Your task to perform on an android device: turn on wifi Image 0: 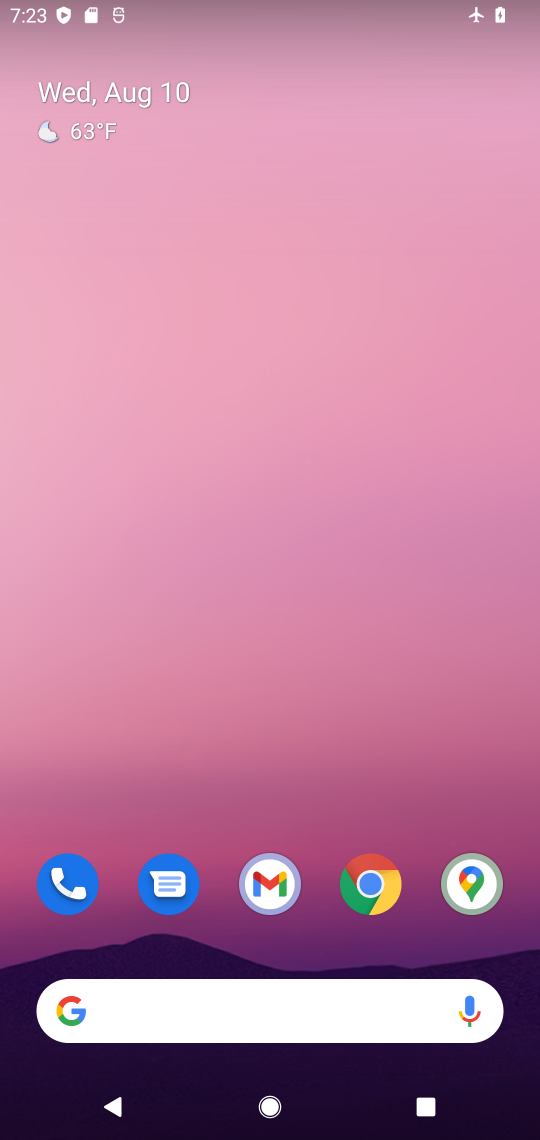
Step 0: drag from (320, 961) to (333, 174)
Your task to perform on an android device: turn on wifi Image 1: 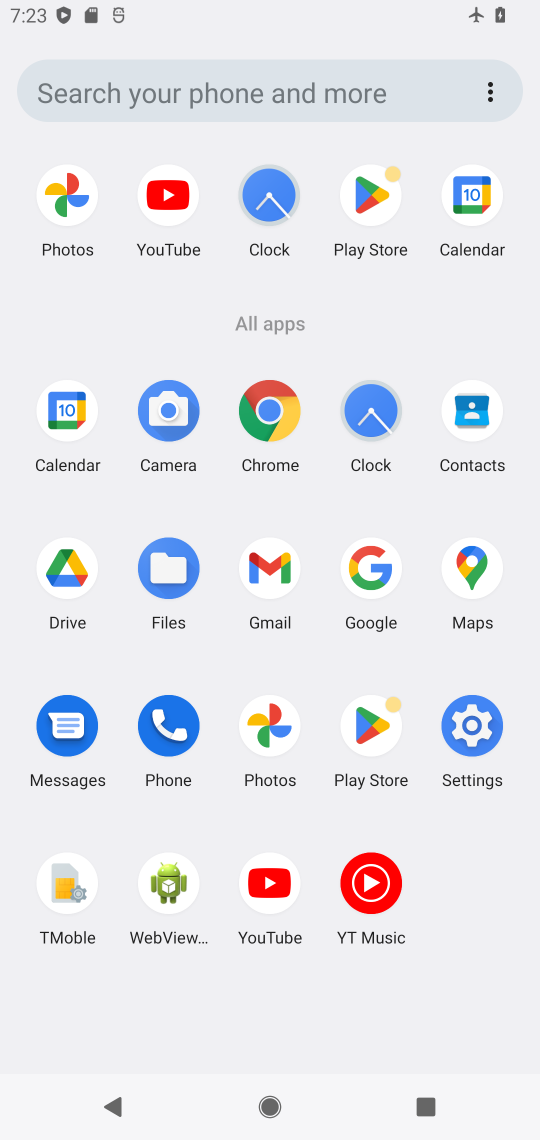
Step 1: click (463, 726)
Your task to perform on an android device: turn on wifi Image 2: 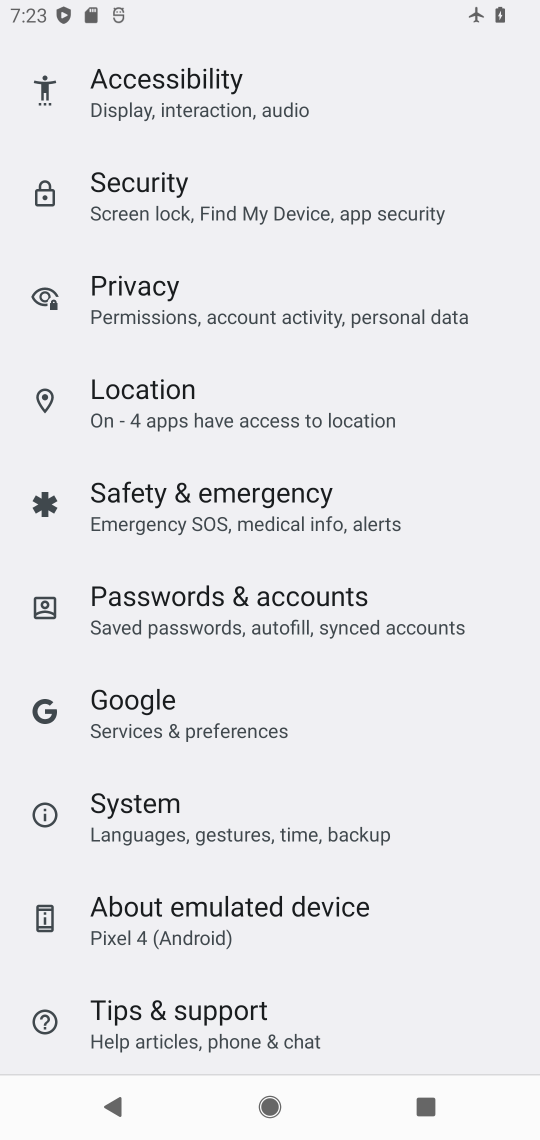
Step 2: drag from (238, 159) to (115, 661)
Your task to perform on an android device: turn on wifi Image 3: 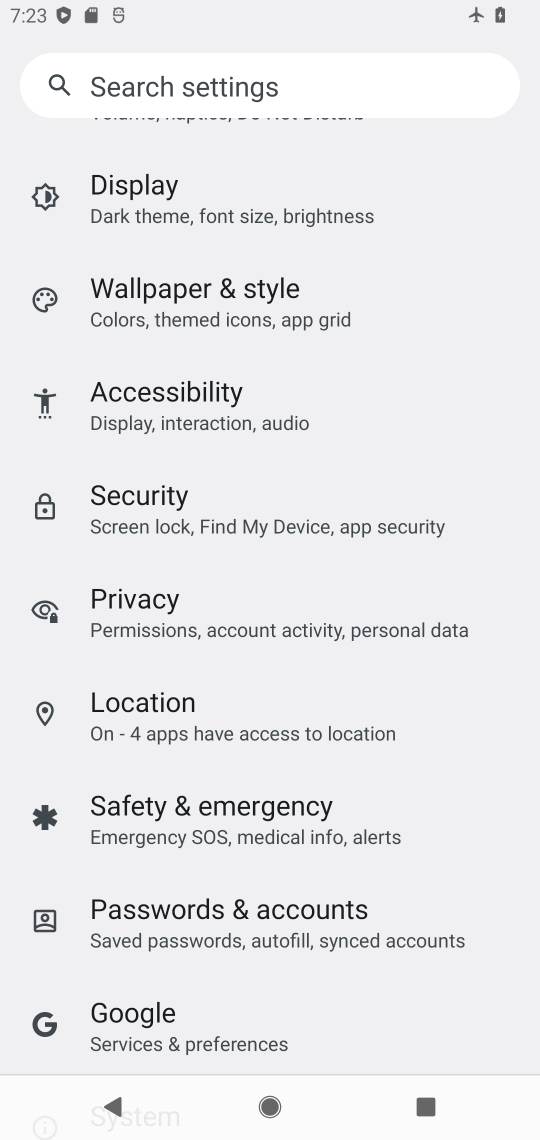
Step 3: drag from (360, 270) to (358, 921)
Your task to perform on an android device: turn on wifi Image 4: 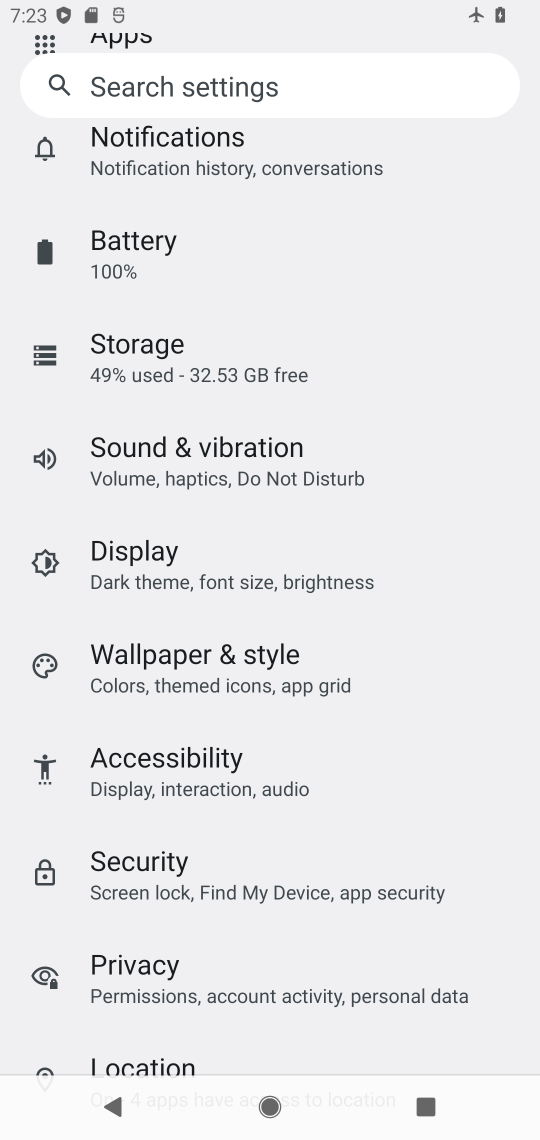
Step 4: drag from (255, 222) to (214, 1066)
Your task to perform on an android device: turn on wifi Image 5: 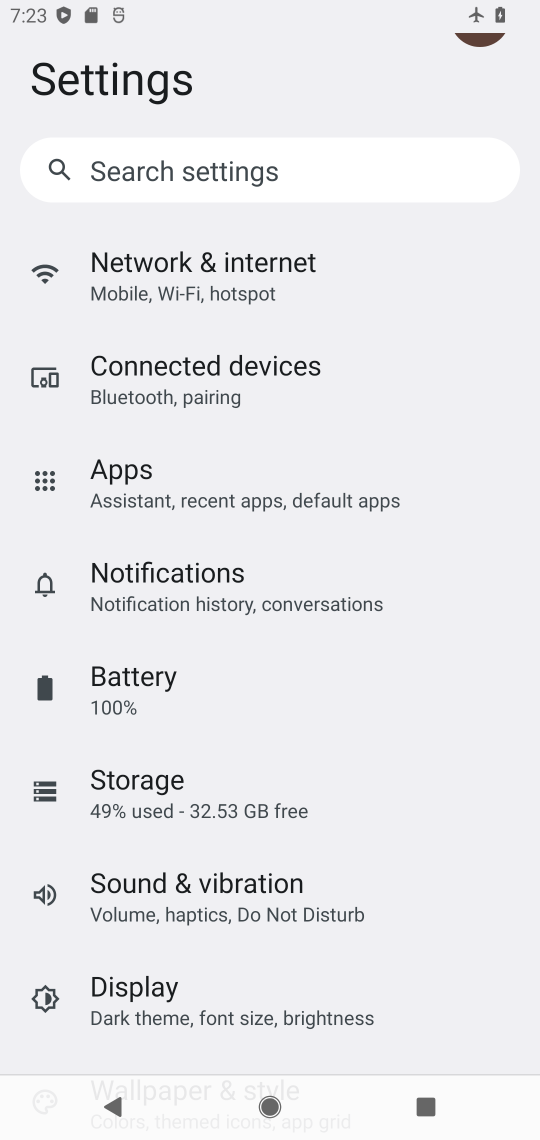
Step 5: click (186, 272)
Your task to perform on an android device: turn on wifi Image 6: 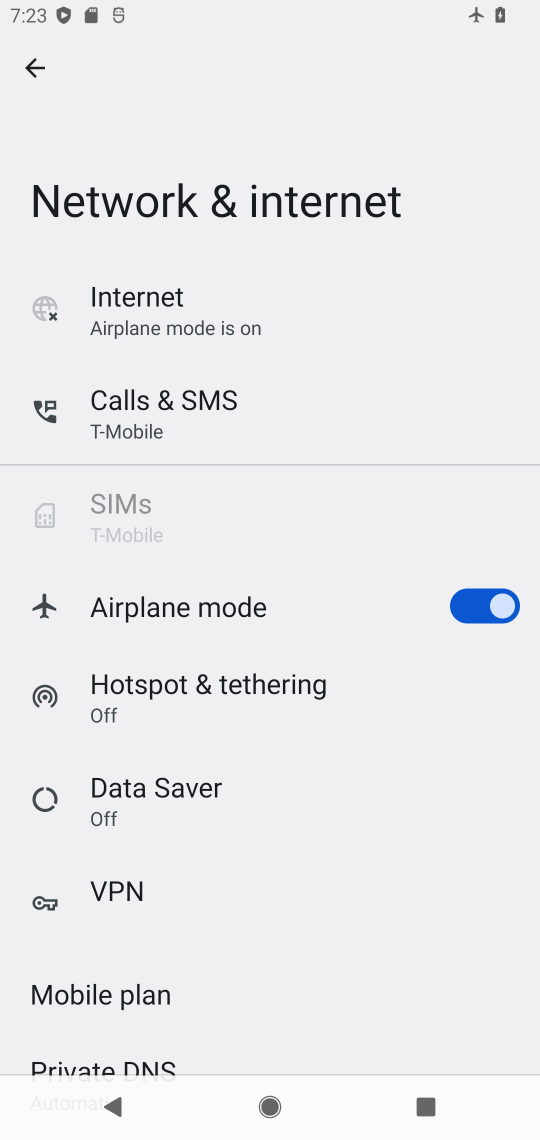
Step 6: click (141, 303)
Your task to perform on an android device: turn on wifi Image 7: 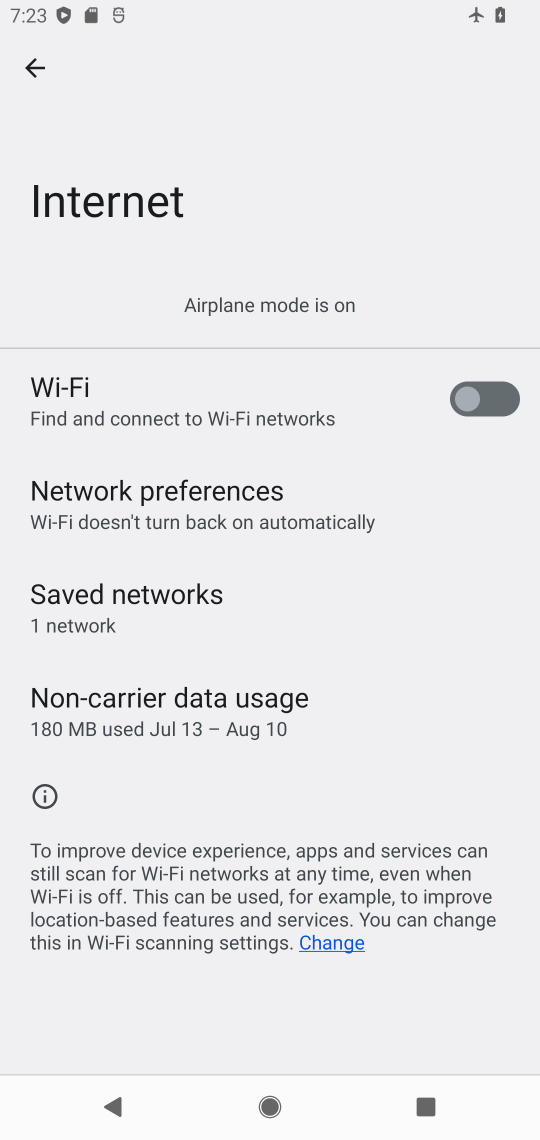
Step 7: click (462, 400)
Your task to perform on an android device: turn on wifi Image 8: 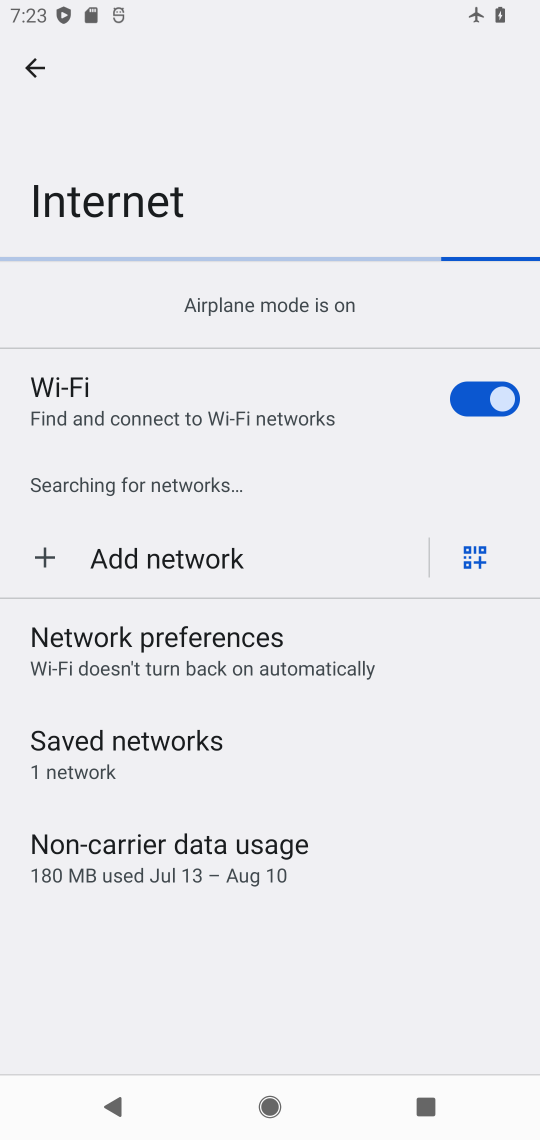
Step 8: task complete